Your task to perform on an android device: open a bookmark in the chrome app Image 0: 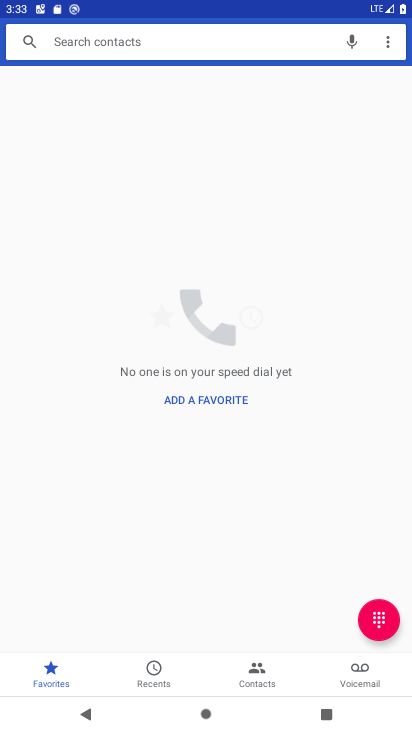
Step 0: press home button
Your task to perform on an android device: open a bookmark in the chrome app Image 1: 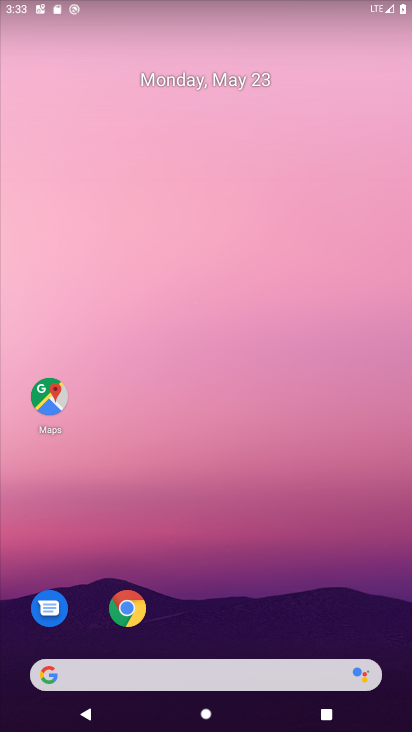
Step 1: drag from (240, 617) to (219, 114)
Your task to perform on an android device: open a bookmark in the chrome app Image 2: 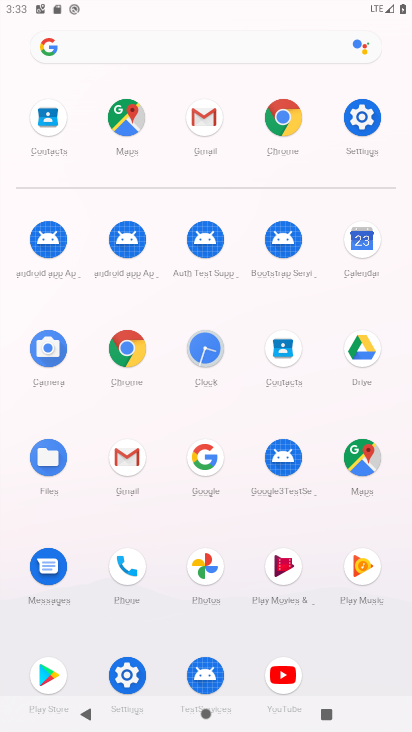
Step 2: click (280, 121)
Your task to perform on an android device: open a bookmark in the chrome app Image 3: 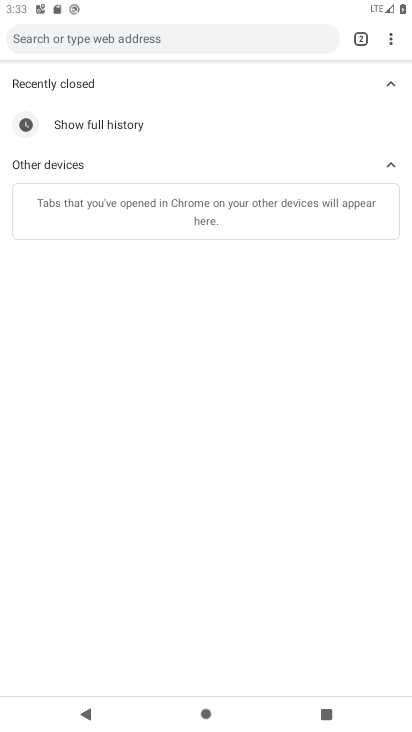
Step 3: click (394, 38)
Your task to perform on an android device: open a bookmark in the chrome app Image 4: 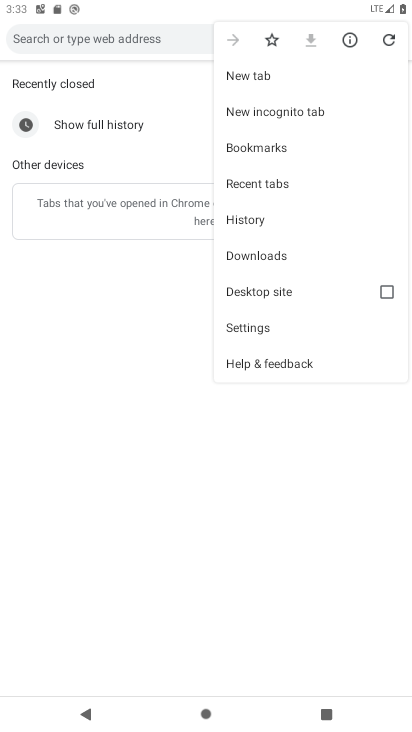
Step 4: click (333, 152)
Your task to perform on an android device: open a bookmark in the chrome app Image 5: 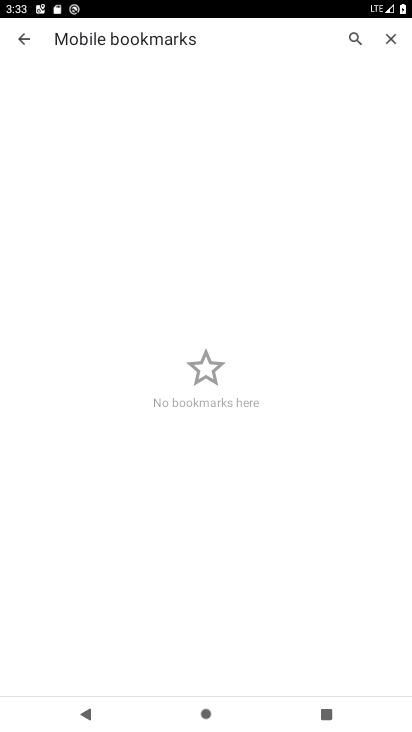
Step 5: task complete